Your task to perform on an android device: Go to Maps Image 0: 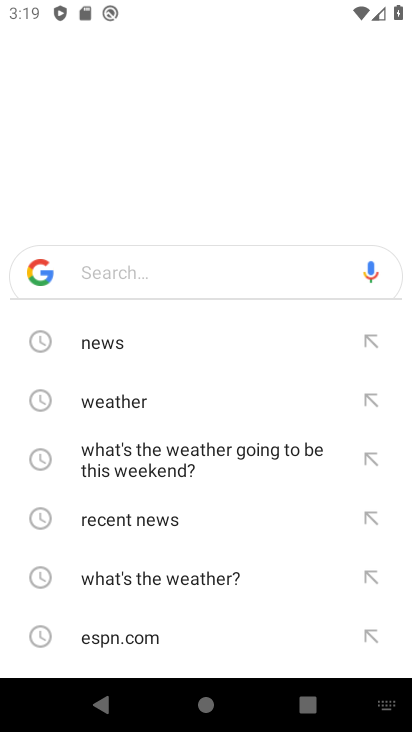
Step 0: press home button
Your task to perform on an android device: Go to Maps Image 1: 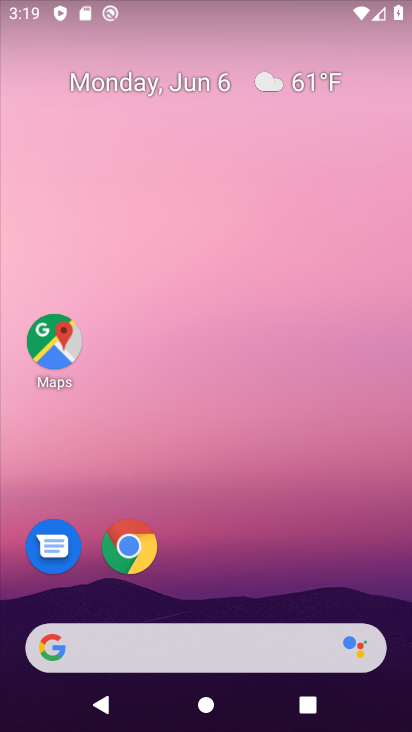
Step 1: click (66, 333)
Your task to perform on an android device: Go to Maps Image 2: 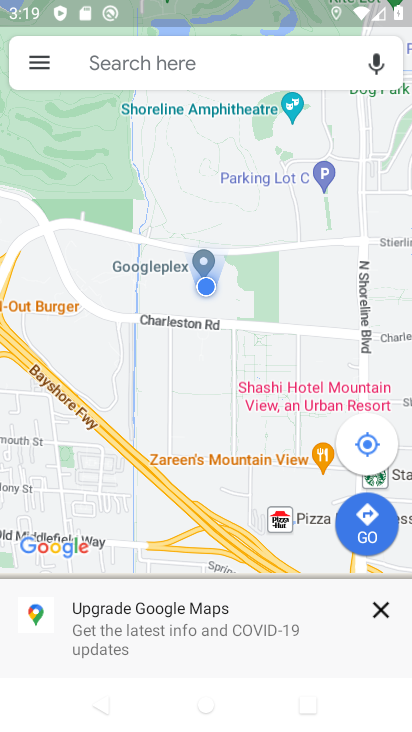
Step 2: task complete